Your task to perform on an android device: Open Yahoo.com Image 0: 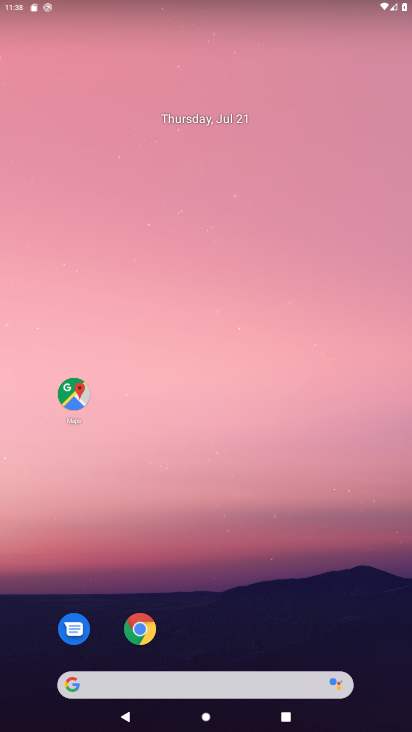
Step 0: click (146, 633)
Your task to perform on an android device: Open Yahoo.com Image 1: 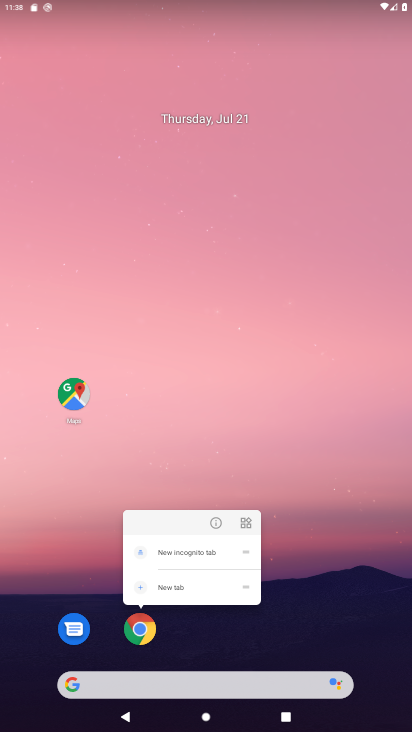
Step 1: click (145, 633)
Your task to perform on an android device: Open Yahoo.com Image 2: 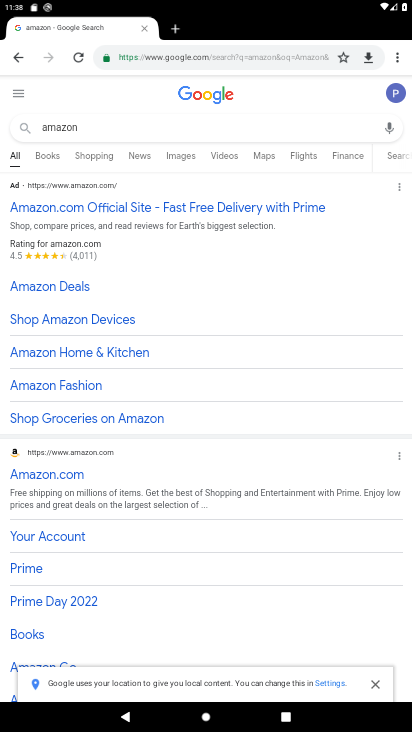
Step 2: click (198, 57)
Your task to perform on an android device: Open Yahoo.com Image 3: 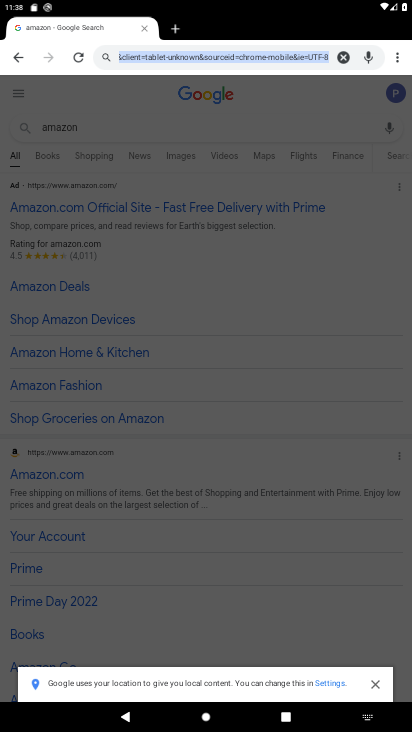
Step 3: type "Yahoo.com"
Your task to perform on an android device: Open Yahoo.com Image 4: 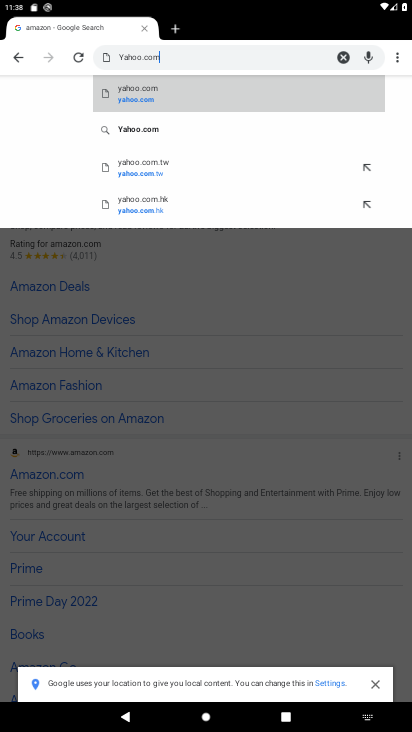
Step 4: click (138, 98)
Your task to perform on an android device: Open Yahoo.com Image 5: 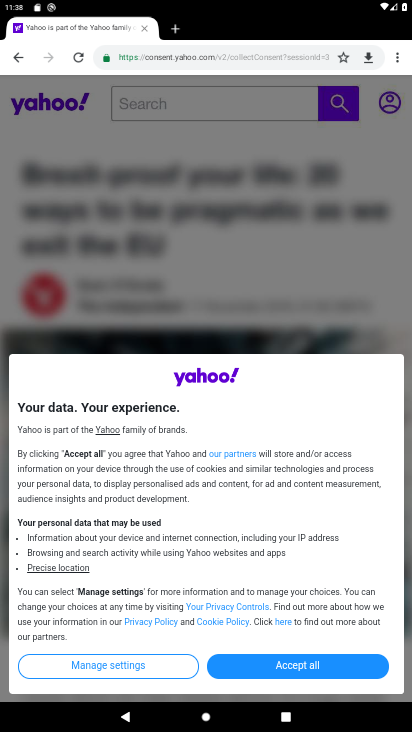
Step 5: task complete